Your task to perform on an android device: show emergency info Image 0: 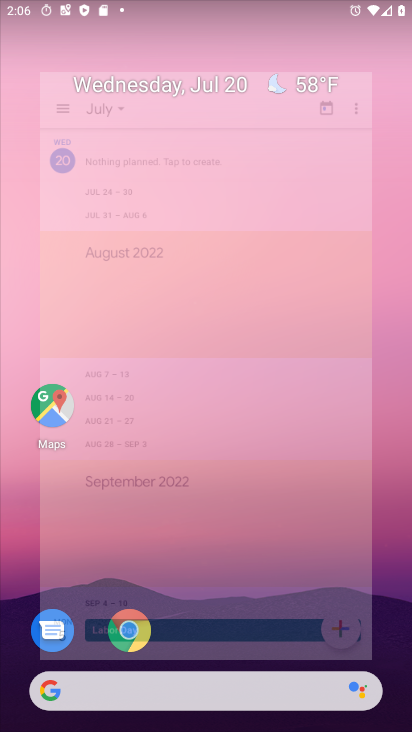
Step 0: press home button
Your task to perform on an android device: show emergency info Image 1: 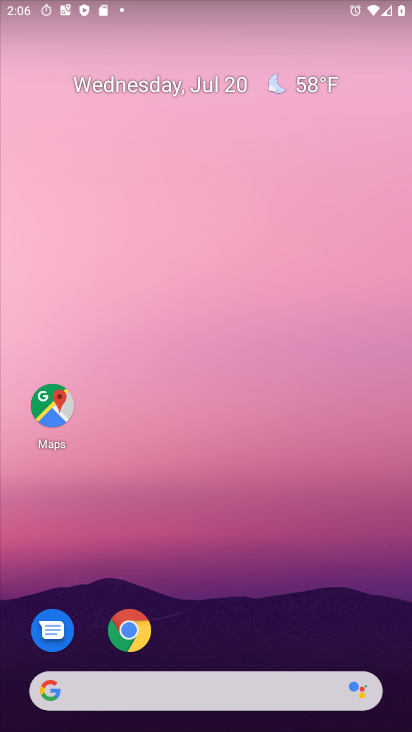
Step 1: drag from (163, 642) to (296, 123)
Your task to perform on an android device: show emergency info Image 2: 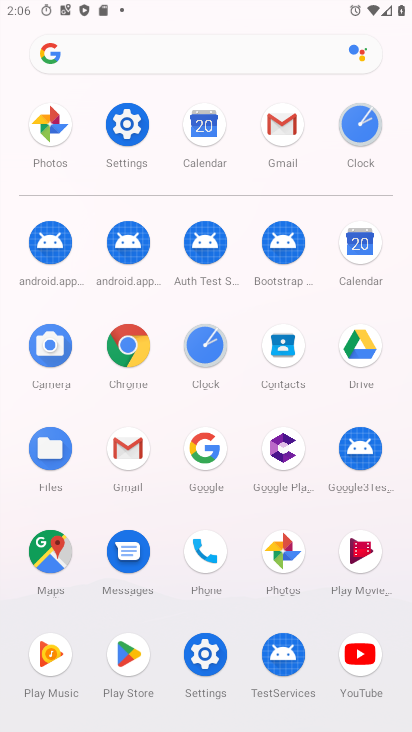
Step 2: click (139, 121)
Your task to perform on an android device: show emergency info Image 3: 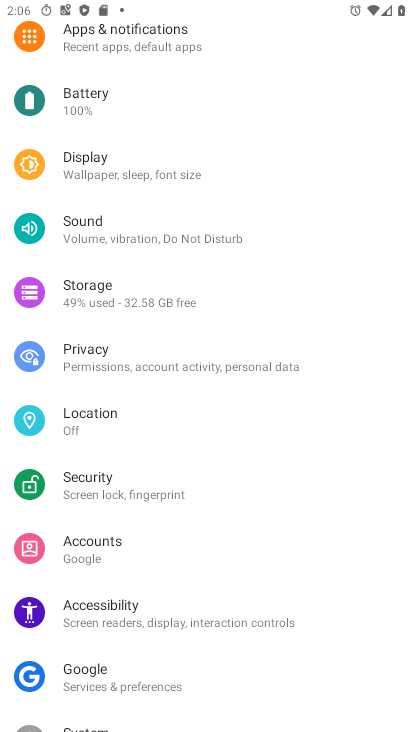
Step 3: drag from (296, 604) to (363, 71)
Your task to perform on an android device: show emergency info Image 4: 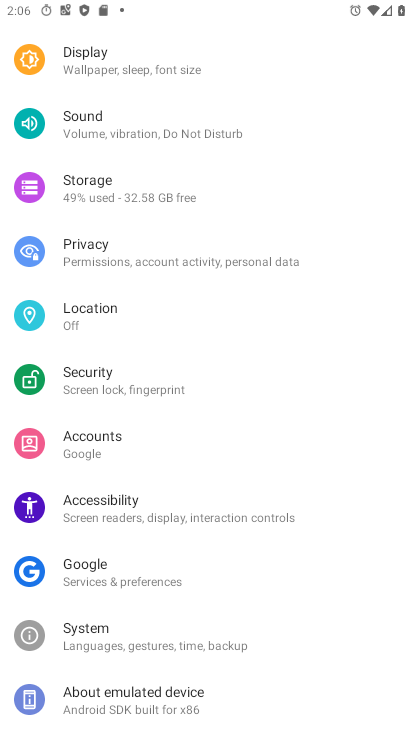
Step 4: click (145, 698)
Your task to perform on an android device: show emergency info Image 5: 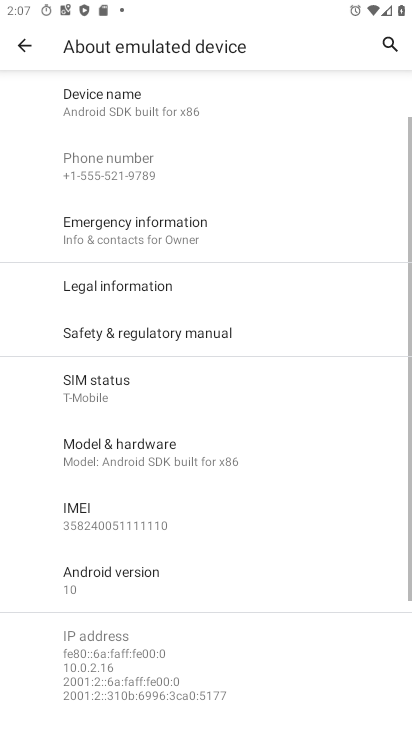
Step 5: click (138, 229)
Your task to perform on an android device: show emergency info Image 6: 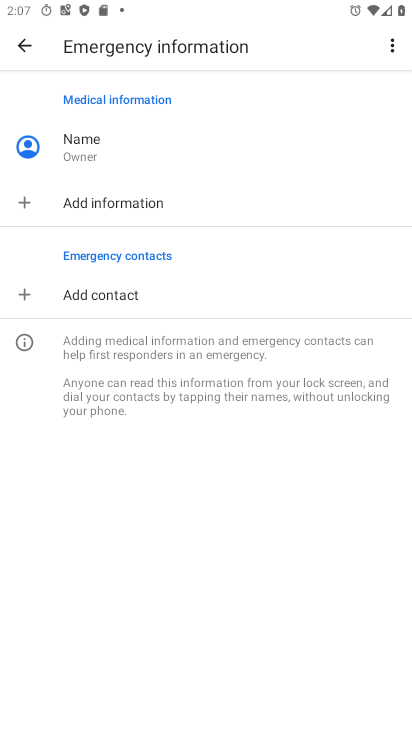
Step 6: task complete